Your task to perform on an android device: toggle priority inbox in the gmail app Image 0: 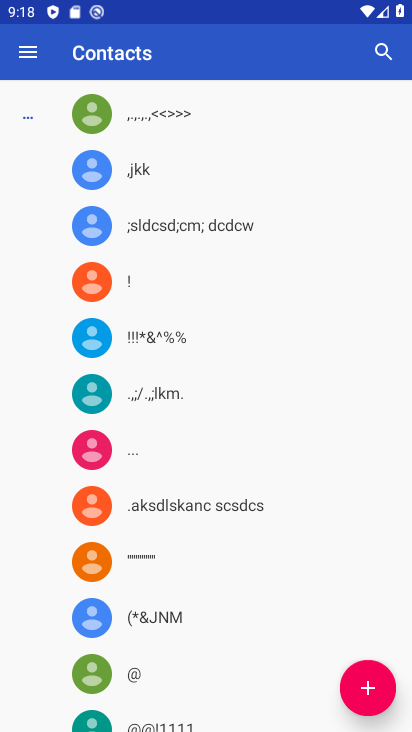
Step 0: press home button
Your task to perform on an android device: toggle priority inbox in the gmail app Image 1: 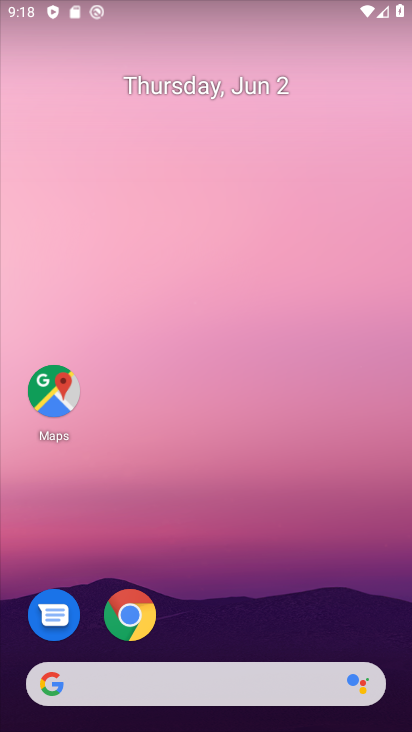
Step 1: drag from (236, 634) to (258, 329)
Your task to perform on an android device: toggle priority inbox in the gmail app Image 2: 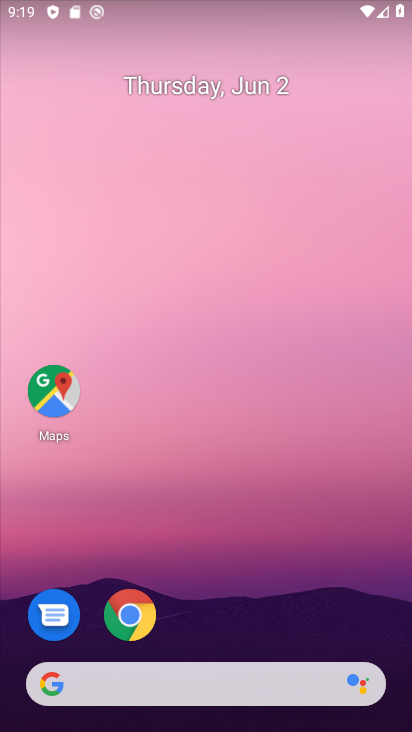
Step 2: drag from (227, 558) to (267, 193)
Your task to perform on an android device: toggle priority inbox in the gmail app Image 3: 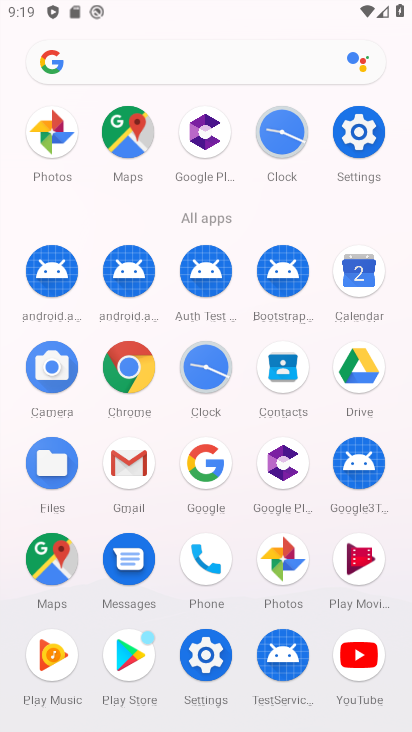
Step 3: click (121, 471)
Your task to perform on an android device: toggle priority inbox in the gmail app Image 4: 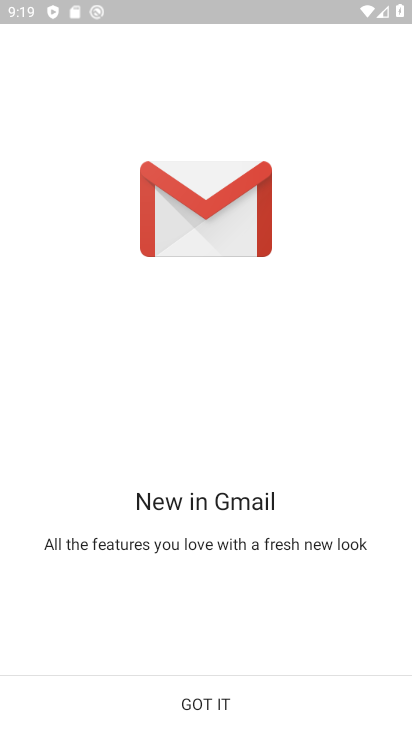
Step 4: click (220, 708)
Your task to perform on an android device: toggle priority inbox in the gmail app Image 5: 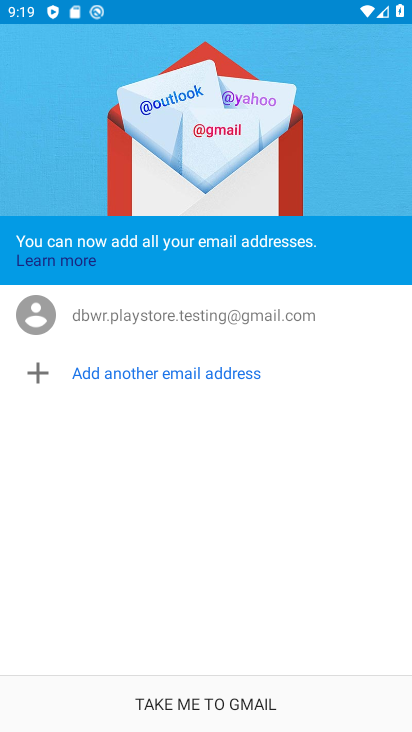
Step 5: click (221, 715)
Your task to perform on an android device: toggle priority inbox in the gmail app Image 6: 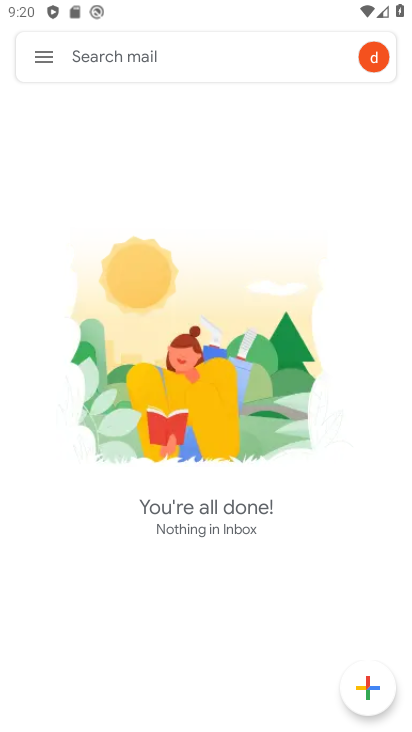
Step 6: click (36, 60)
Your task to perform on an android device: toggle priority inbox in the gmail app Image 7: 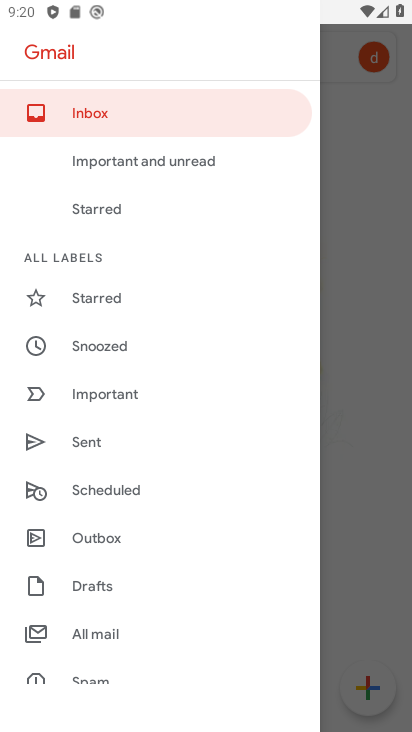
Step 7: drag from (132, 575) to (161, 229)
Your task to perform on an android device: toggle priority inbox in the gmail app Image 8: 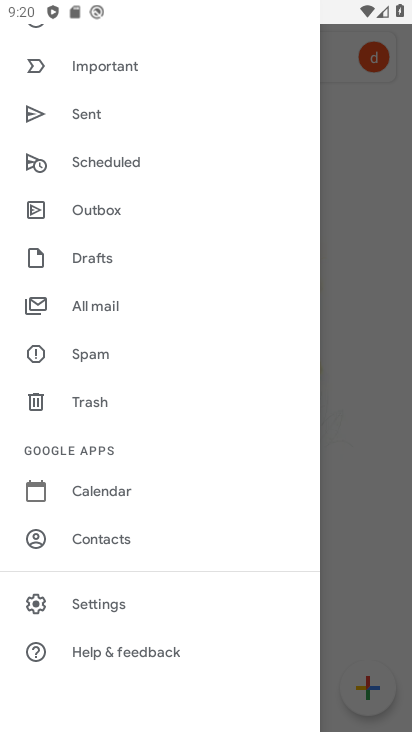
Step 8: click (96, 602)
Your task to perform on an android device: toggle priority inbox in the gmail app Image 9: 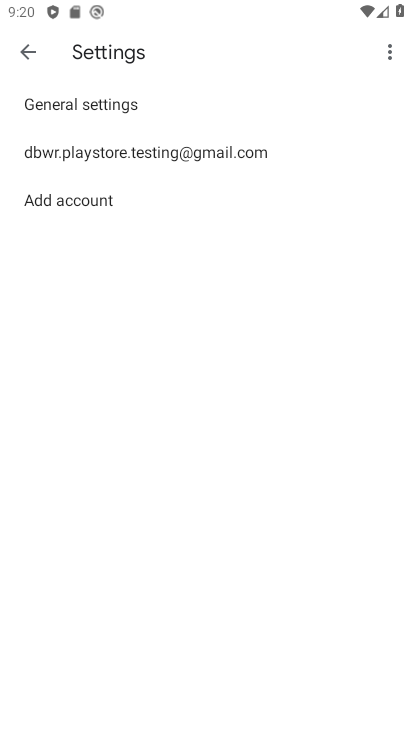
Step 9: click (98, 159)
Your task to perform on an android device: toggle priority inbox in the gmail app Image 10: 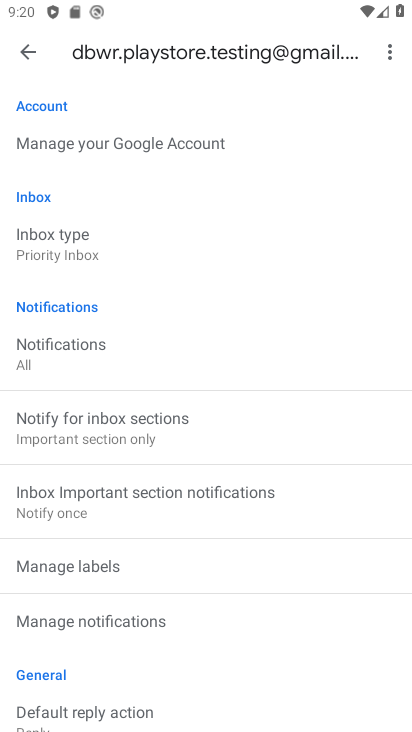
Step 10: click (82, 253)
Your task to perform on an android device: toggle priority inbox in the gmail app Image 11: 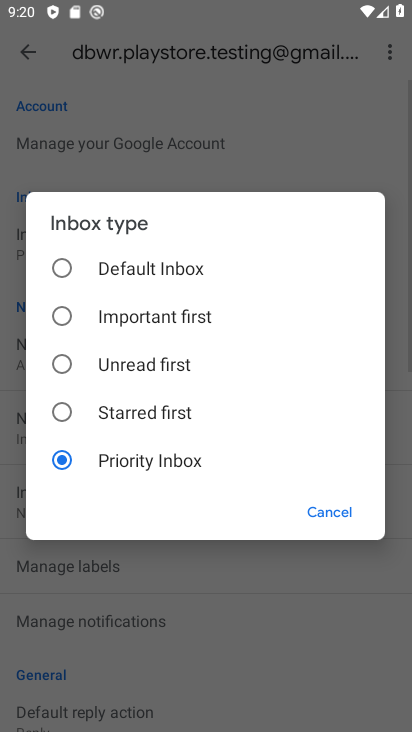
Step 11: click (135, 265)
Your task to perform on an android device: toggle priority inbox in the gmail app Image 12: 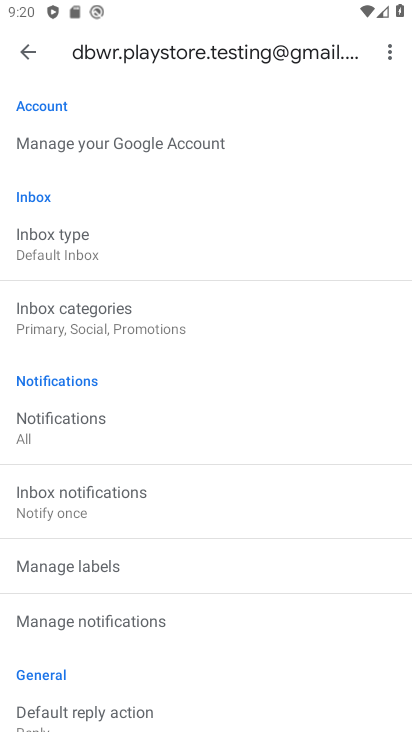
Step 12: task complete